Your task to perform on an android device: manage bookmarks in the chrome app Image 0: 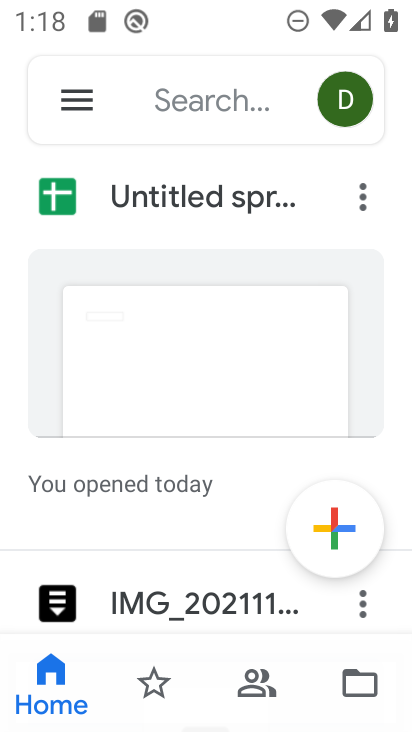
Step 0: press home button
Your task to perform on an android device: manage bookmarks in the chrome app Image 1: 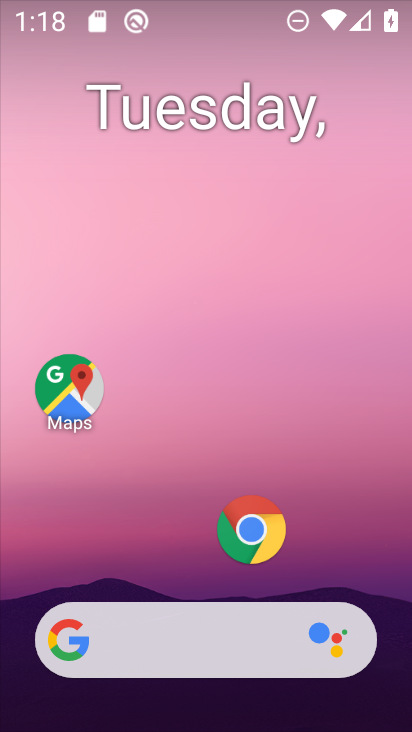
Step 1: drag from (210, 682) to (168, 267)
Your task to perform on an android device: manage bookmarks in the chrome app Image 2: 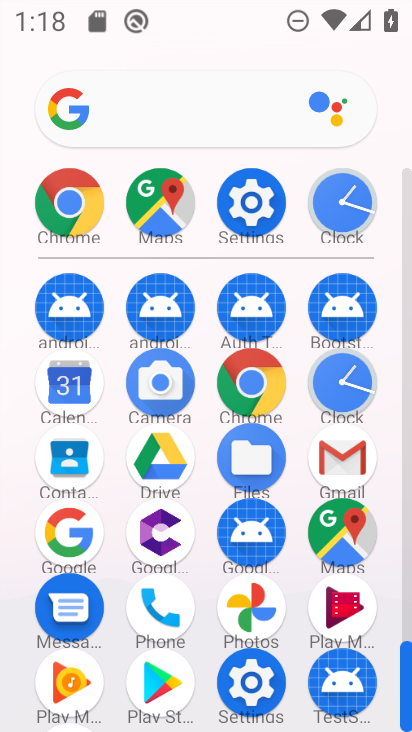
Step 2: click (83, 229)
Your task to perform on an android device: manage bookmarks in the chrome app Image 3: 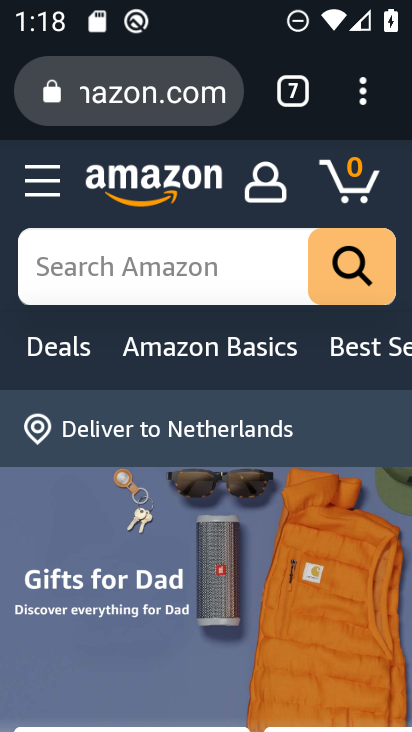
Step 3: click (358, 104)
Your task to perform on an android device: manage bookmarks in the chrome app Image 4: 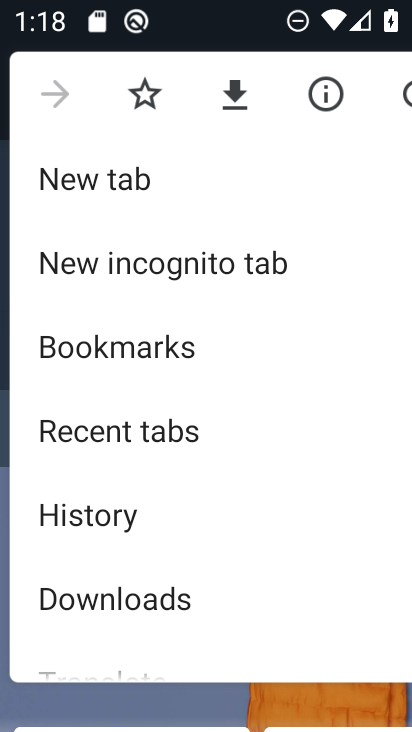
Step 4: click (125, 343)
Your task to perform on an android device: manage bookmarks in the chrome app Image 5: 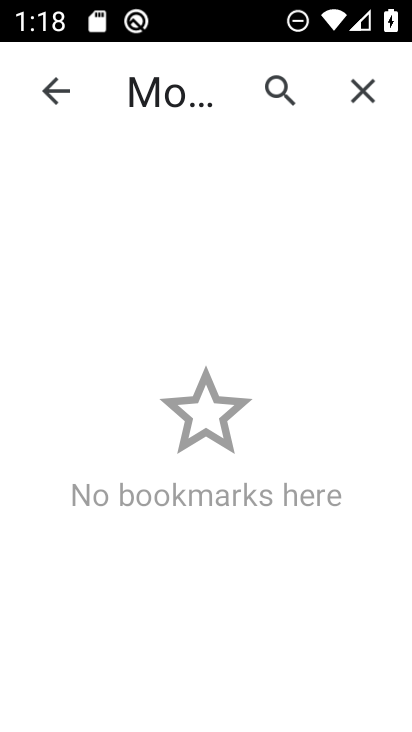
Step 5: task complete